Your task to perform on an android device: find photos in the google photos app Image 0: 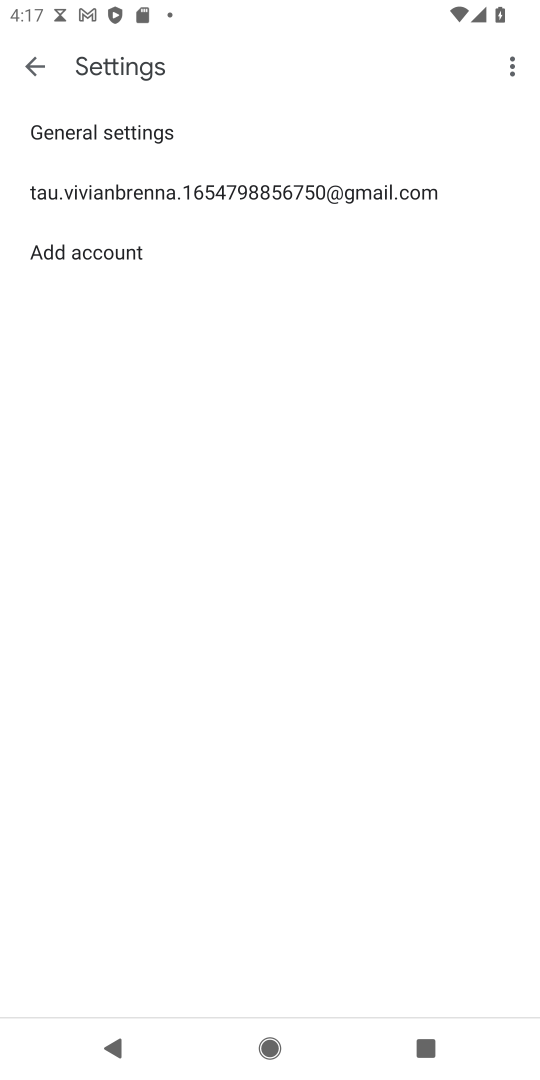
Step 0: press home button
Your task to perform on an android device: find photos in the google photos app Image 1: 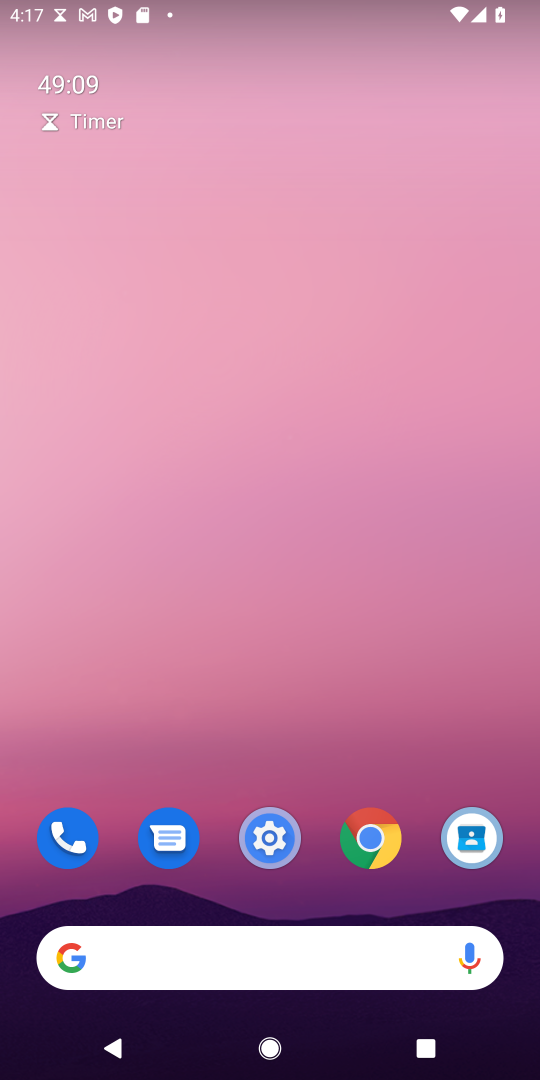
Step 1: drag from (325, 751) to (194, 177)
Your task to perform on an android device: find photos in the google photos app Image 2: 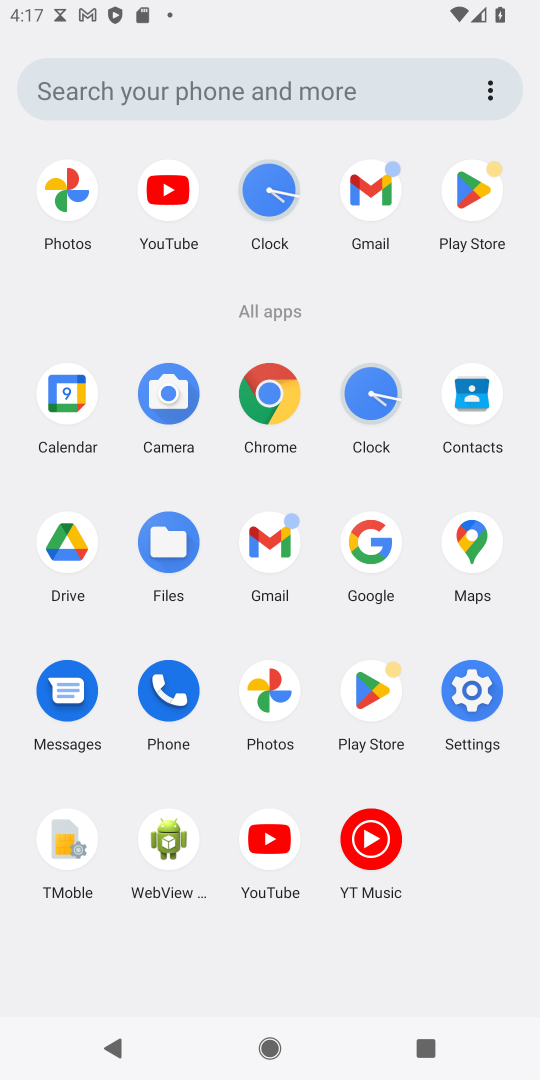
Step 2: click (274, 711)
Your task to perform on an android device: find photos in the google photos app Image 3: 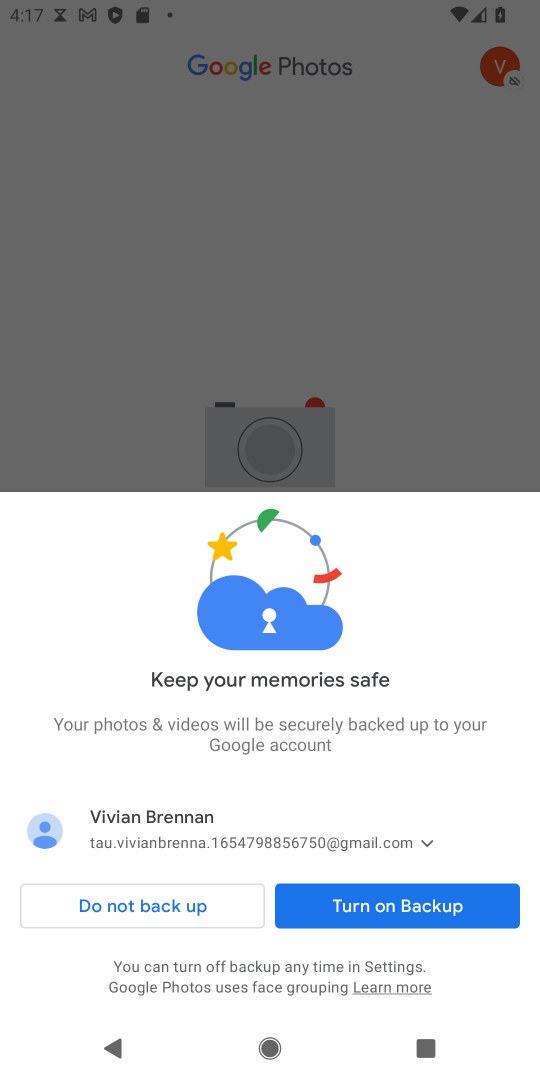
Step 3: click (461, 914)
Your task to perform on an android device: find photos in the google photos app Image 4: 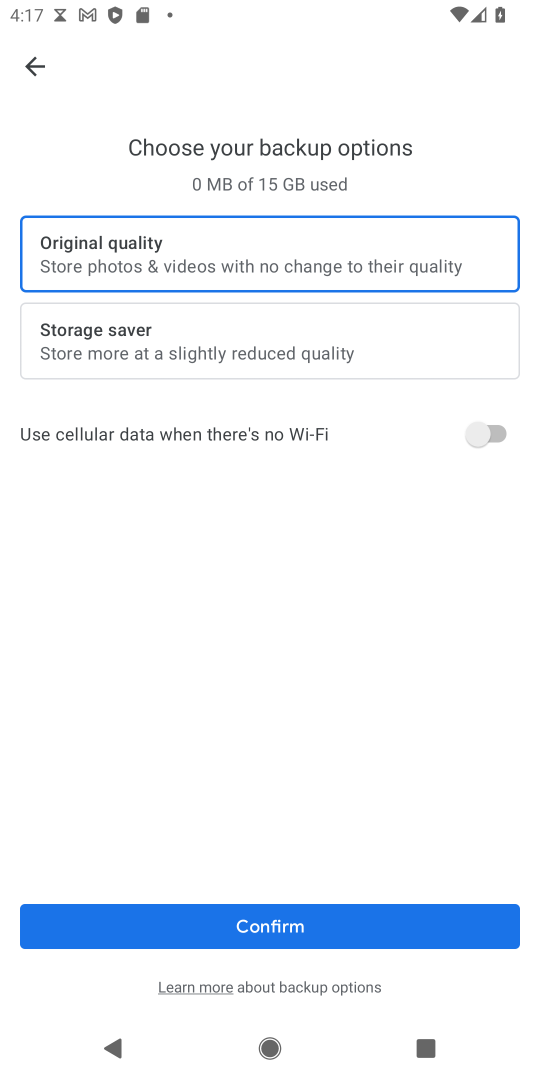
Step 4: click (429, 914)
Your task to perform on an android device: find photos in the google photos app Image 5: 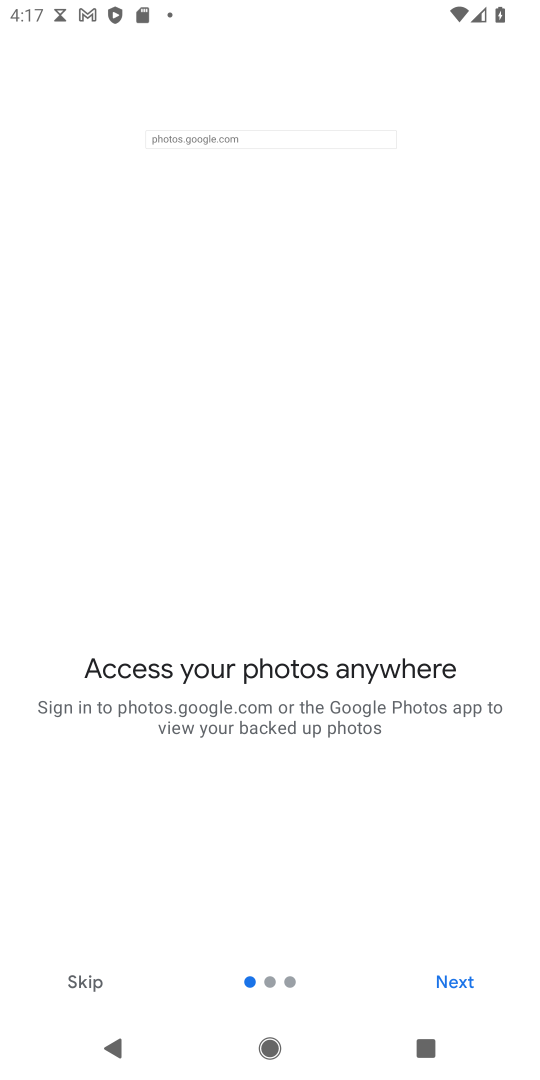
Step 5: click (77, 990)
Your task to perform on an android device: find photos in the google photos app Image 6: 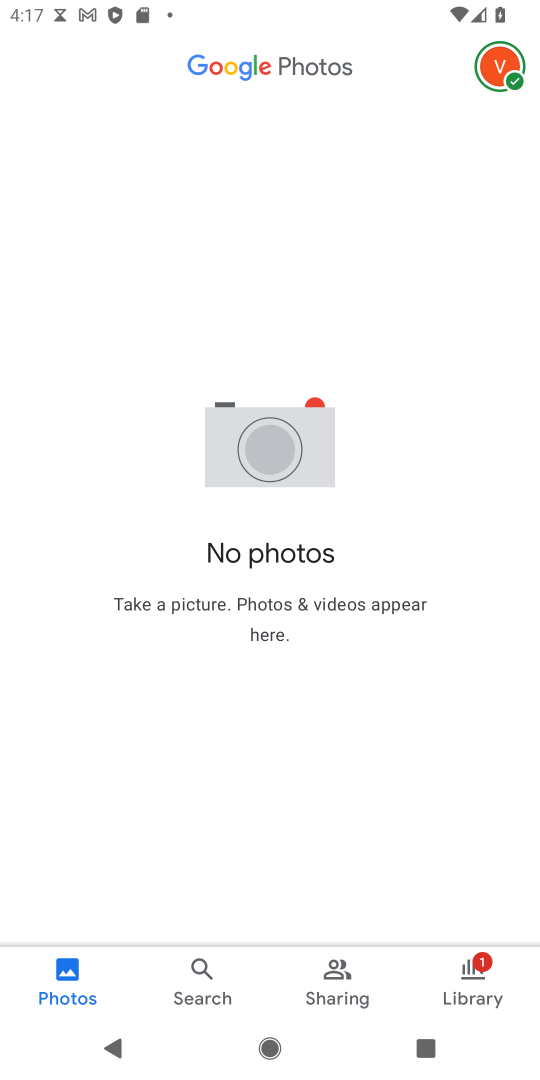
Step 6: task complete